Your task to perform on an android device: Do I have any events tomorrow? Image 0: 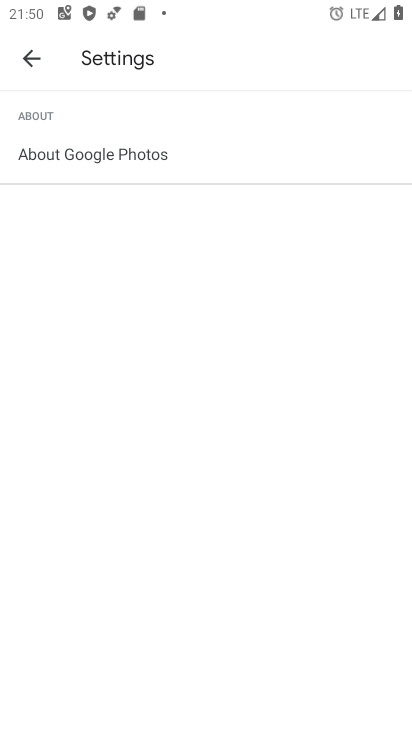
Step 0: press home button
Your task to perform on an android device: Do I have any events tomorrow? Image 1: 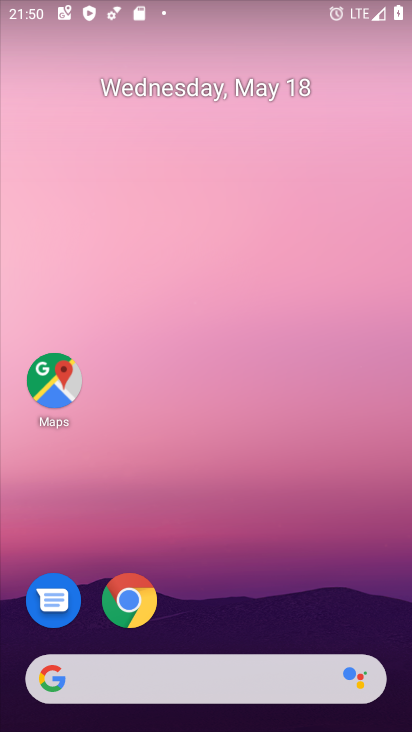
Step 1: drag from (220, 571) to (332, 77)
Your task to perform on an android device: Do I have any events tomorrow? Image 2: 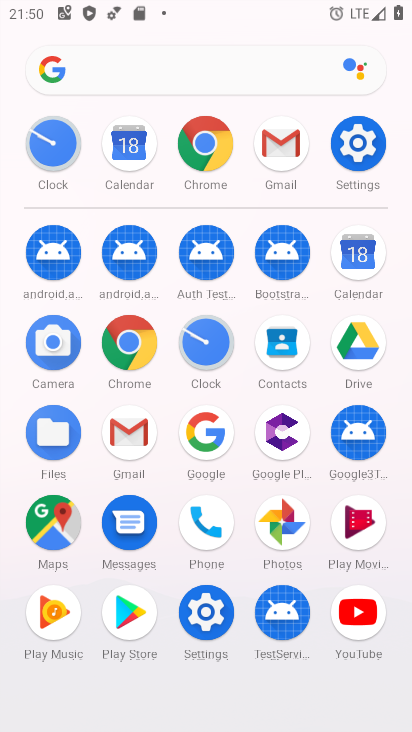
Step 2: click (122, 142)
Your task to perform on an android device: Do I have any events tomorrow? Image 3: 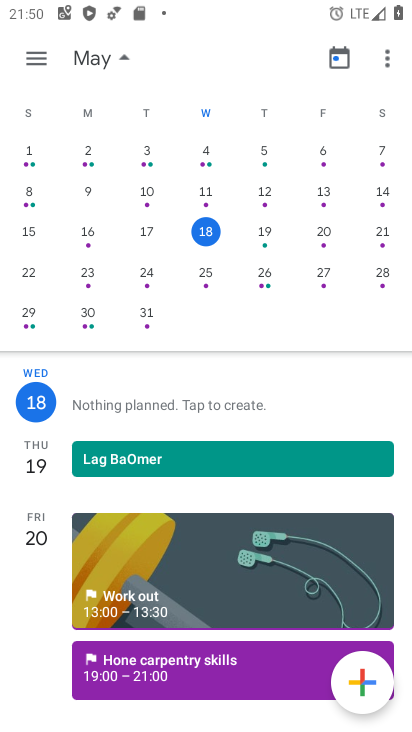
Step 3: click (198, 231)
Your task to perform on an android device: Do I have any events tomorrow? Image 4: 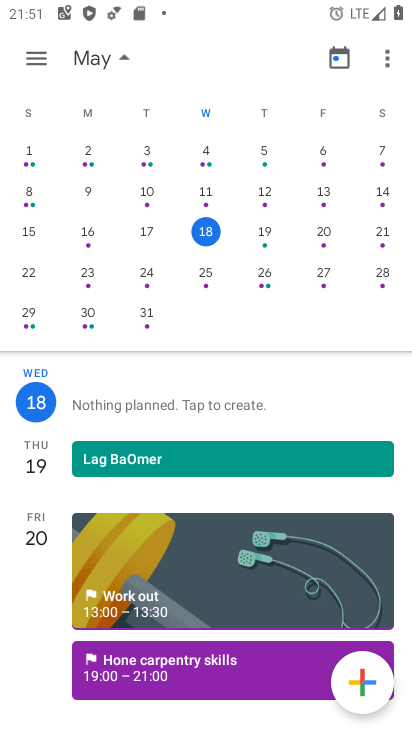
Step 4: click (127, 462)
Your task to perform on an android device: Do I have any events tomorrow? Image 5: 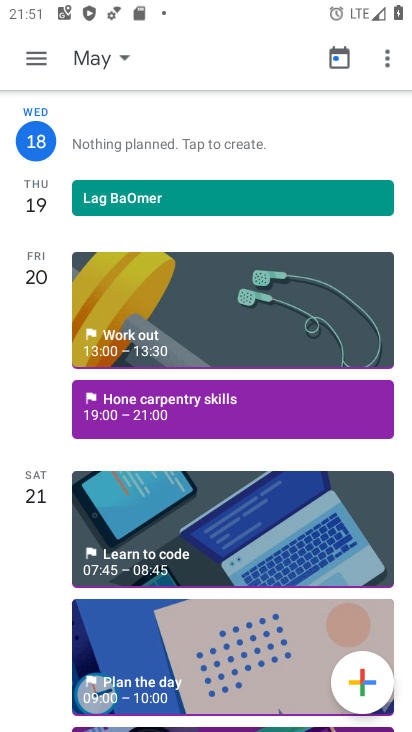
Step 5: task complete